Your task to perform on an android device: Search for Mexican restaurants on Maps Image 0: 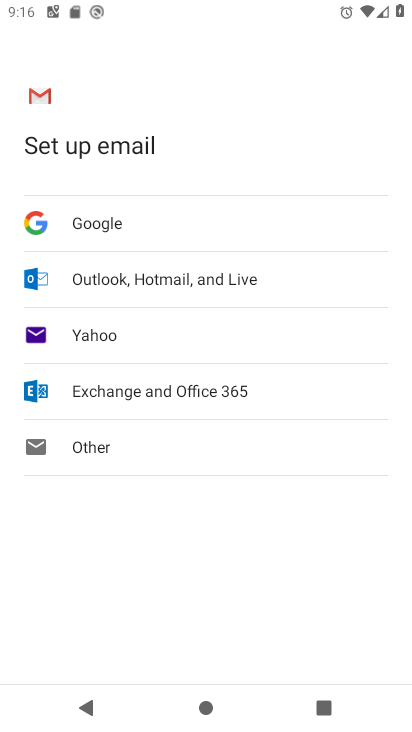
Step 0: press home button
Your task to perform on an android device: Search for Mexican restaurants on Maps Image 1: 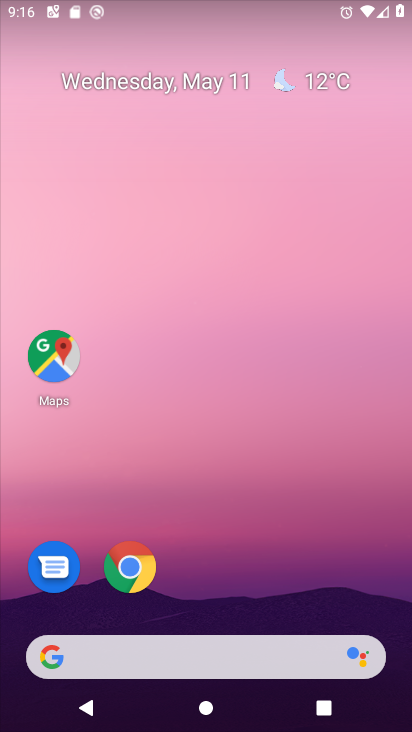
Step 1: click (54, 353)
Your task to perform on an android device: Search for Mexican restaurants on Maps Image 2: 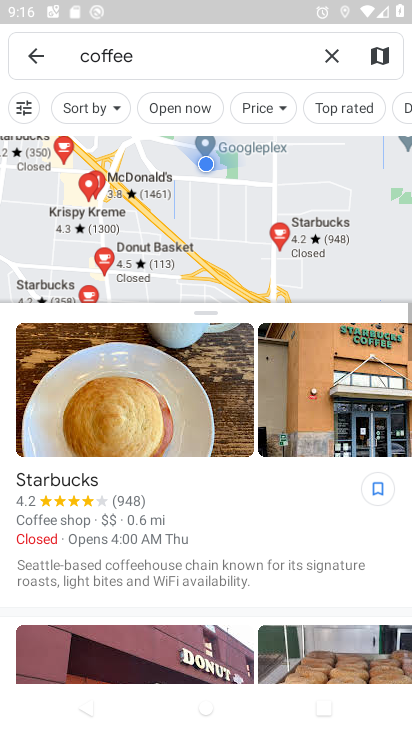
Step 2: click (340, 54)
Your task to perform on an android device: Search for Mexican restaurants on Maps Image 3: 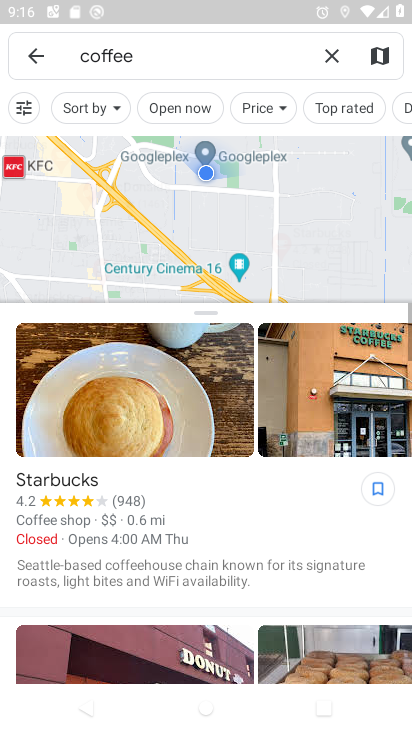
Step 3: click (193, 46)
Your task to perform on an android device: Search for Mexican restaurants on Maps Image 4: 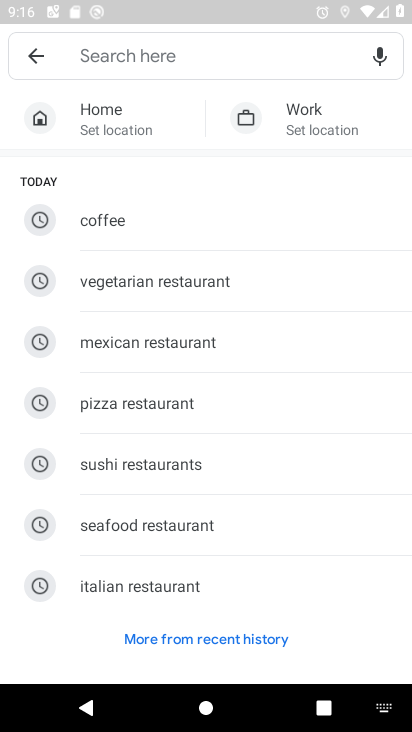
Step 4: click (183, 336)
Your task to perform on an android device: Search for Mexican restaurants on Maps Image 5: 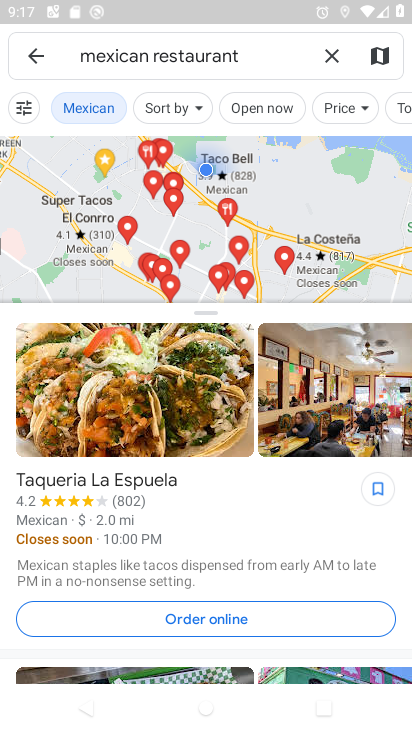
Step 5: task complete